Your task to perform on an android device: turn on location history Image 0: 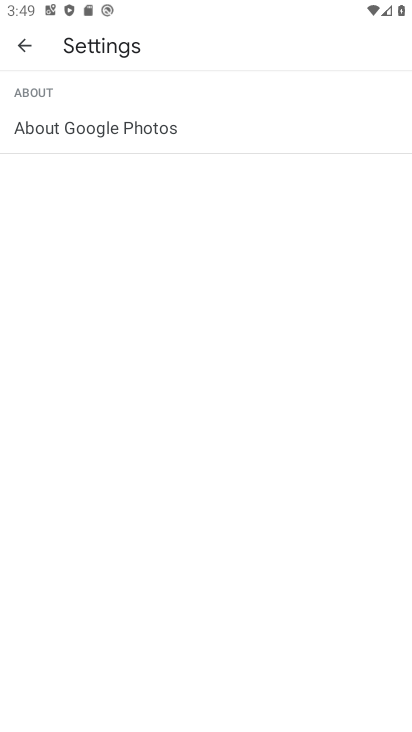
Step 0: click (26, 47)
Your task to perform on an android device: turn on location history Image 1: 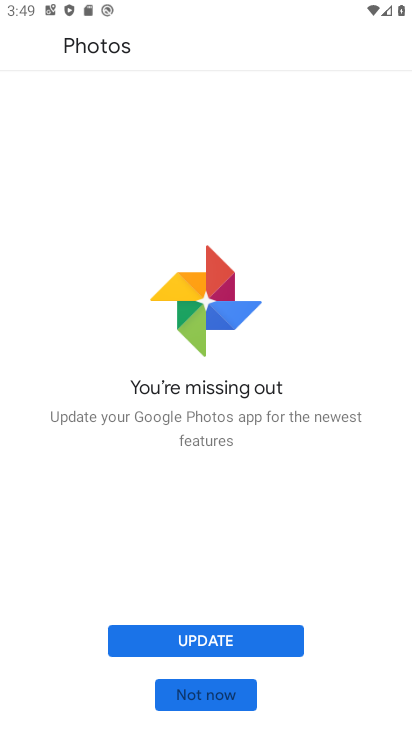
Step 1: press back button
Your task to perform on an android device: turn on location history Image 2: 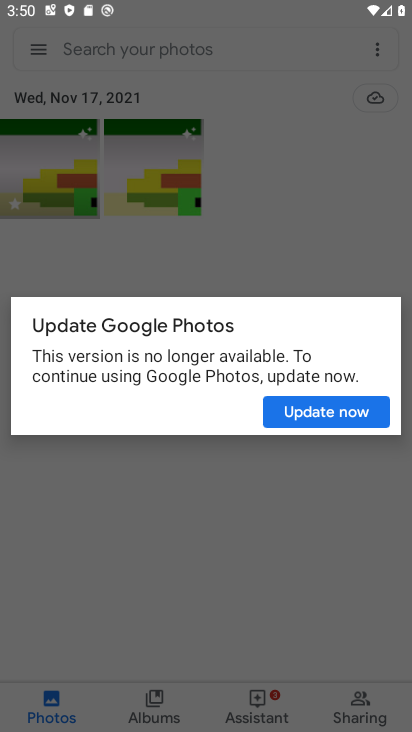
Step 2: press home button
Your task to perform on an android device: turn on location history Image 3: 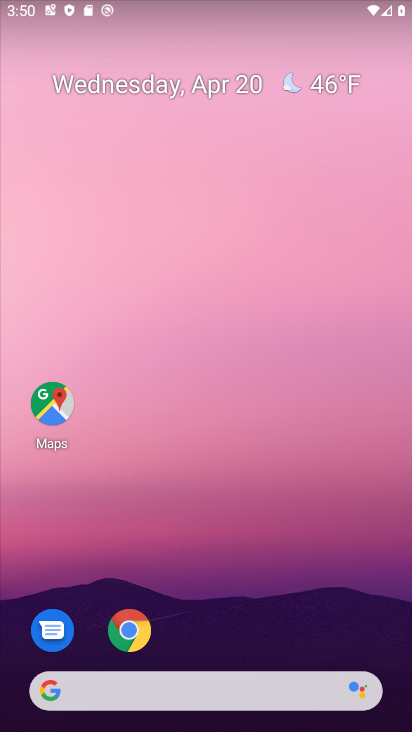
Step 3: drag from (219, 671) to (213, 224)
Your task to perform on an android device: turn on location history Image 4: 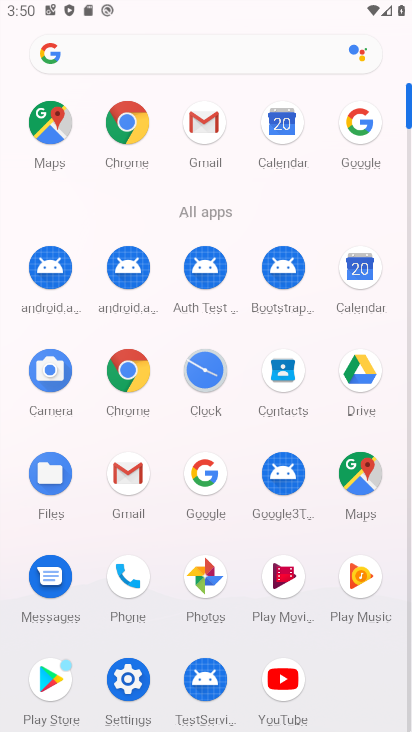
Step 4: drag from (240, 677) to (231, 273)
Your task to perform on an android device: turn on location history Image 5: 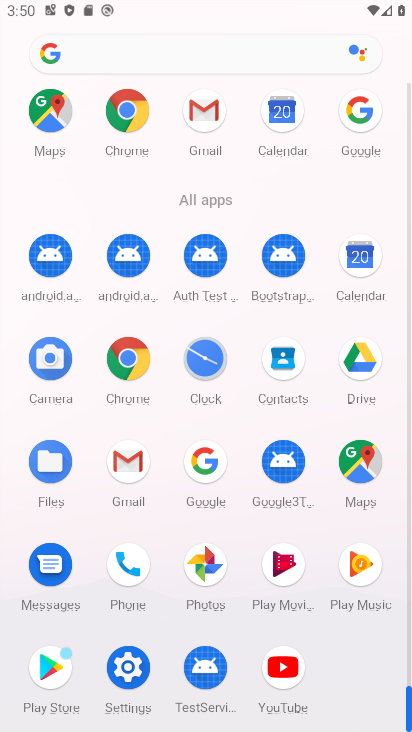
Step 5: click (127, 667)
Your task to perform on an android device: turn on location history Image 6: 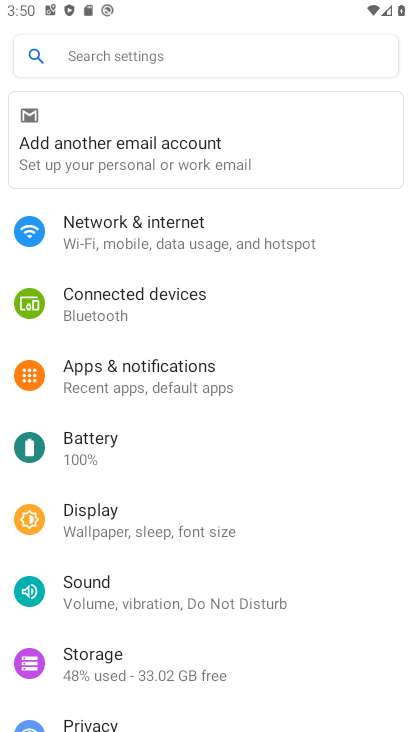
Step 6: drag from (183, 669) to (188, 456)
Your task to perform on an android device: turn on location history Image 7: 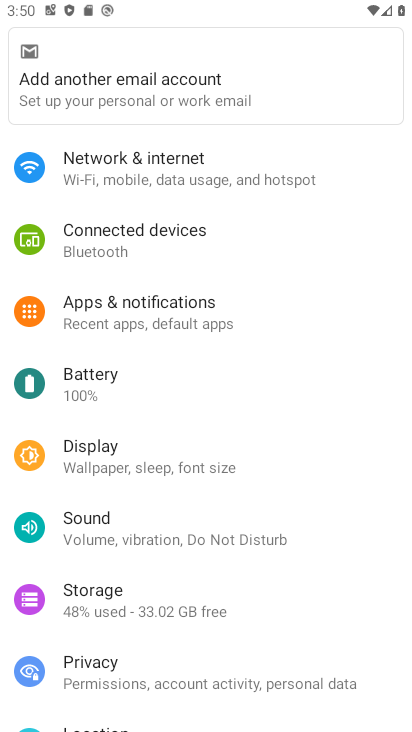
Step 7: drag from (187, 710) to (190, 342)
Your task to perform on an android device: turn on location history Image 8: 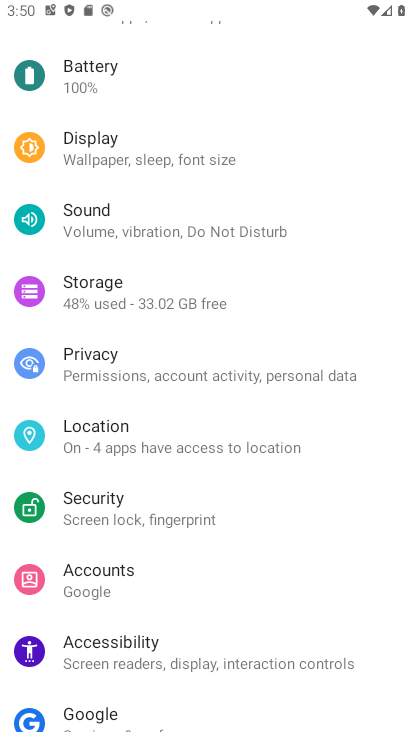
Step 8: click (101, 438)
Your task to perform on an android device: turn on location history Image 9: 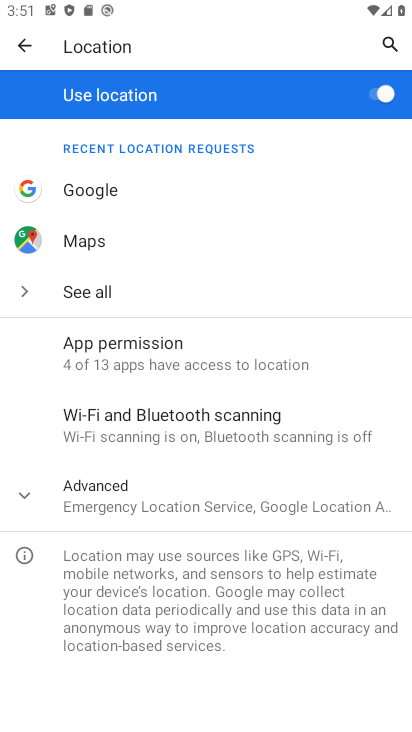
Step 9: click (140, 499)
Your task to perform on an android device: turn on location history Image 10: 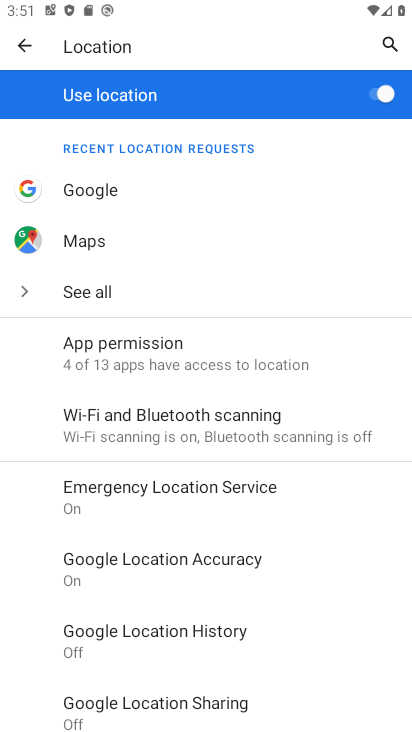
Step 10: drag from (266, 688) to (266, 424)
Your task to perform on an android device: turn on location history Image 11: 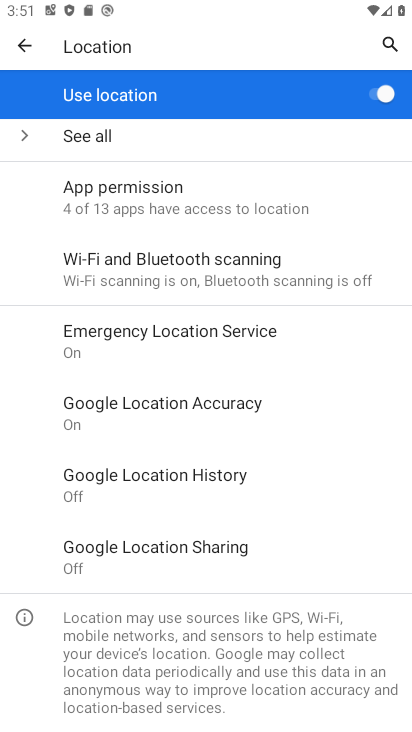
Step 11: click (207, 481)
Your task to perform on an android device: turn on location history Image 12: 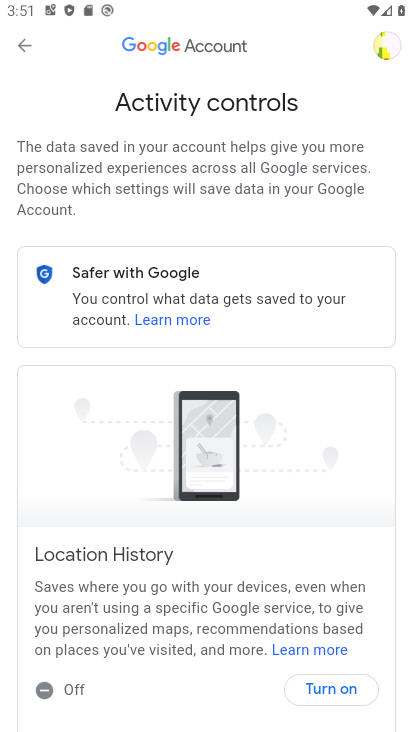
Step 12: task complete